Your task to perform on an android device: delete browsing data in the chrome app Image 0: 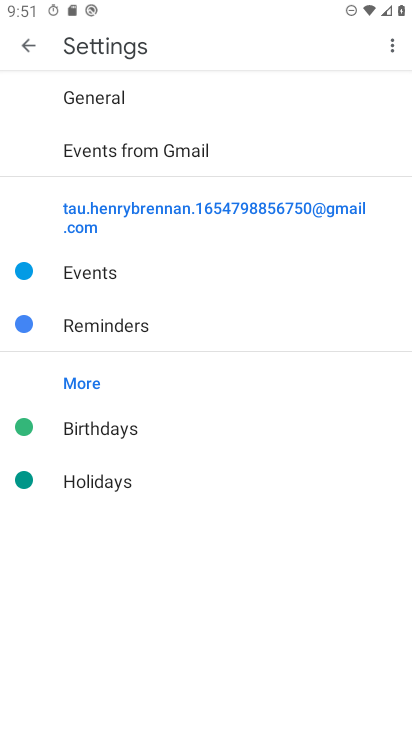
Step 0: press home button
Your task to perform on an android device: delete browsing data in the chrome app Image 1: 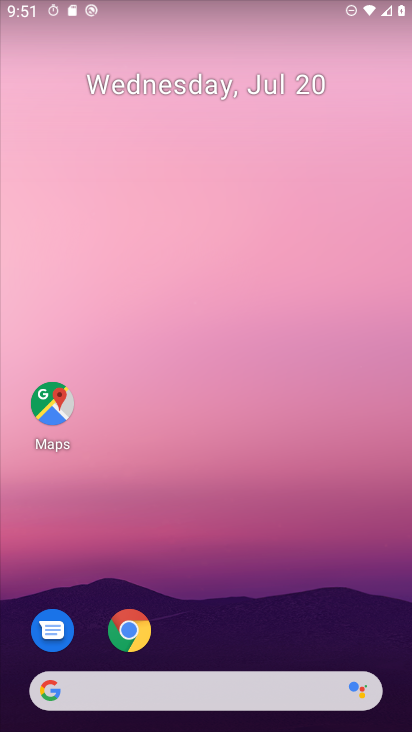
Step 1: drag from (224, 689) to (216, 164)
Your task to perform on an android device: delete browsing data in the chrome app Image 2: 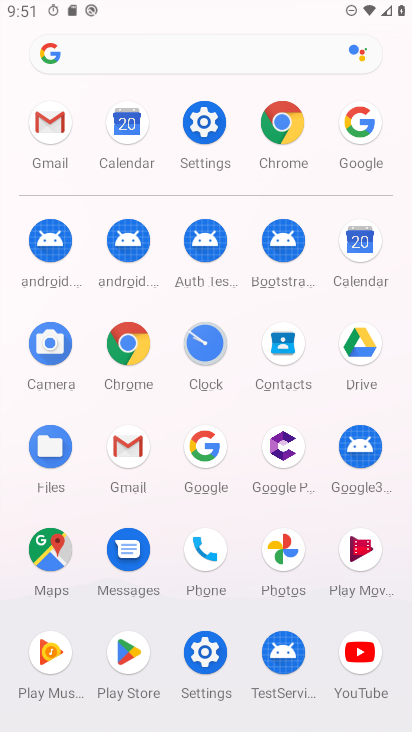
Step 2: click (286, 149)
Your task to perform on an android device: delete browsing data in the chrome app Image 3: 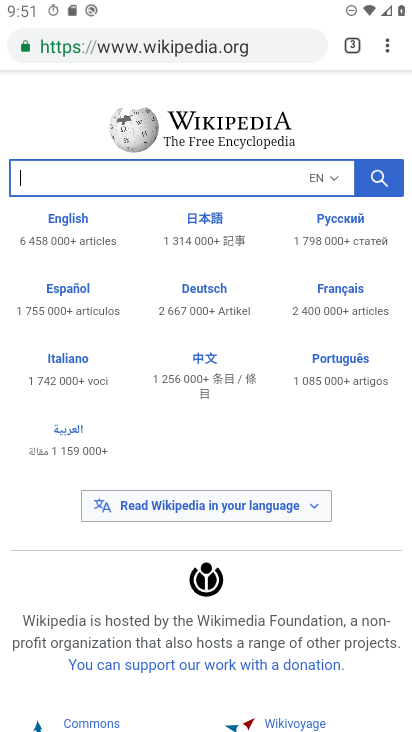
Step 3: click (377, 39)
Your task to perform on an android device: delete browsing data in the chrome app Image 4: 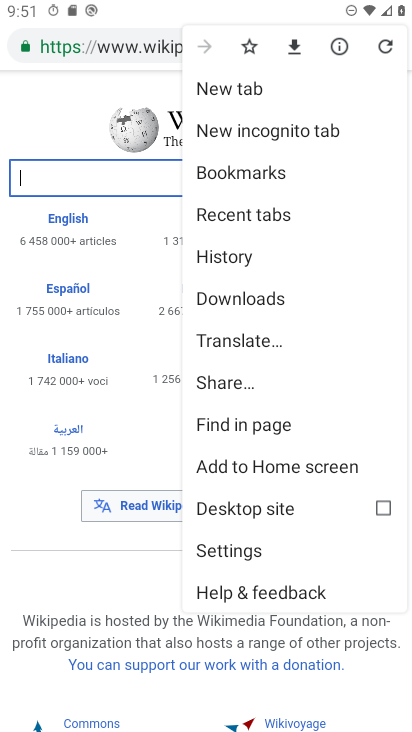
Step 4: click (227, 268)
Your task to perform on an android device: delete browsing data in the chrome app Image 5: 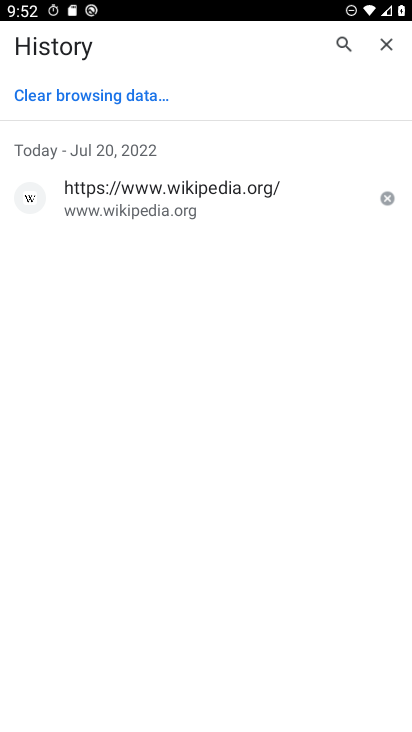
Step 5: click (102, 96)
Your task to perform on an android device: delete browsing data in the chrome app Image 6: 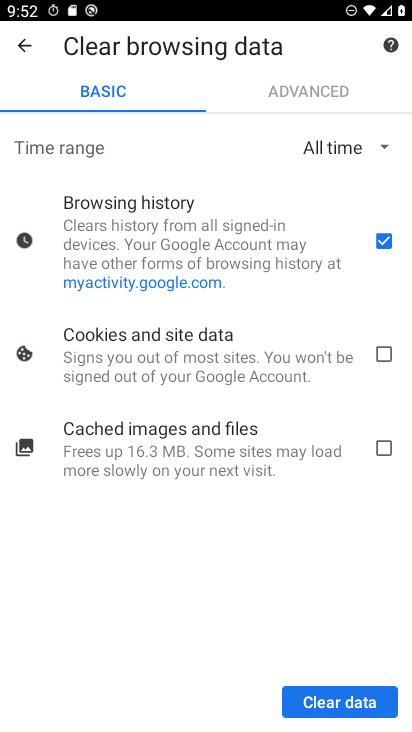
Step 6: click (325, 702)
Your task to perform on an android device: delete browsing data in the chrome app Image 7: 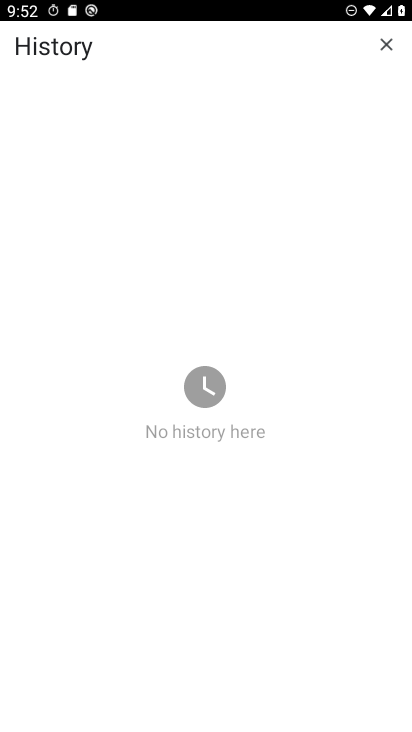
Step 7: task complete